Your task to perform on an android device: Open Reddit.com Image 0: 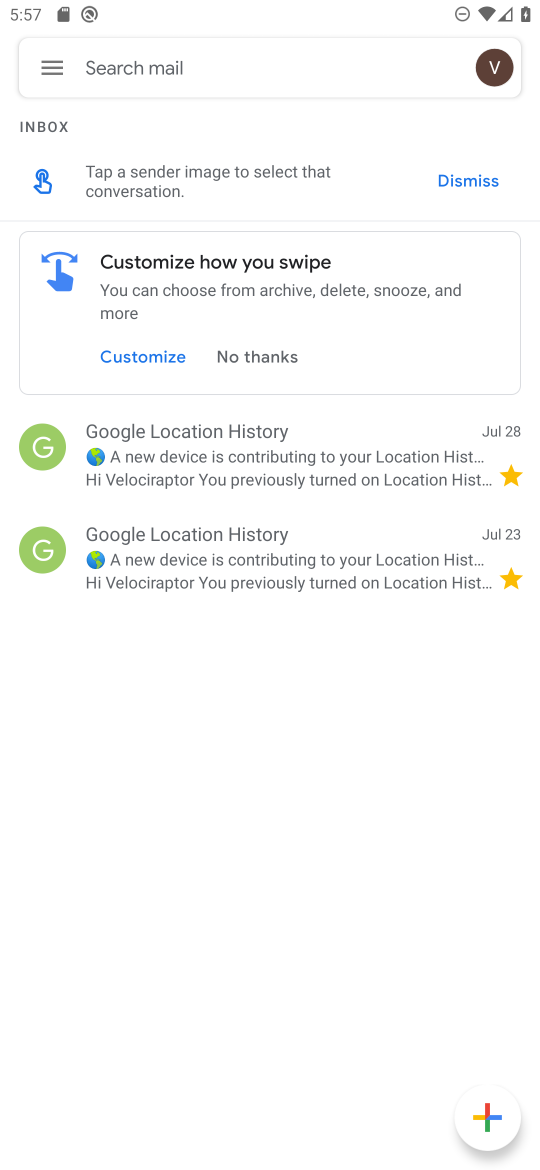
Step 0: press home button
Your task to perform on an android device: Open Reddit.com Image 1: 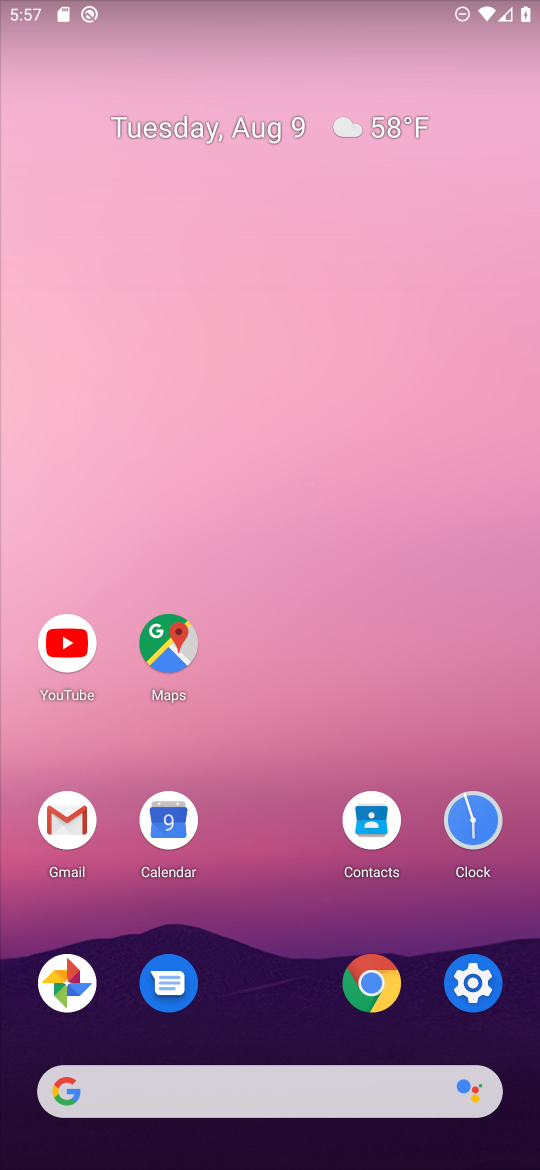
Step 1: click (374, 982)
Your task to perform on an android device: Open Reddit.com Image 2: 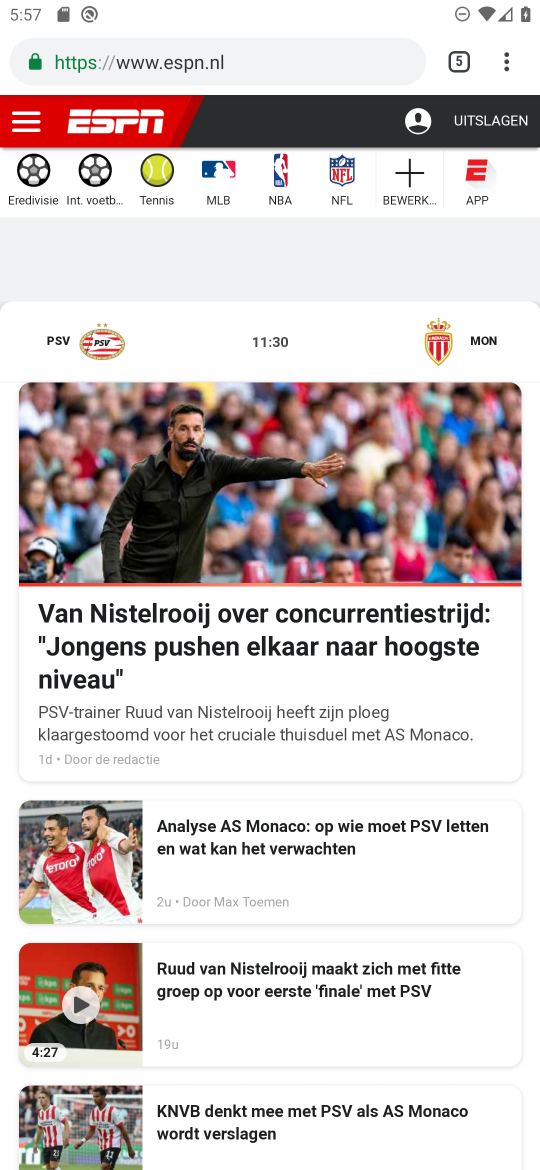
Step 2: click (502, 60)
Your task to perform on an android device: Open Reddit.com Image 3: 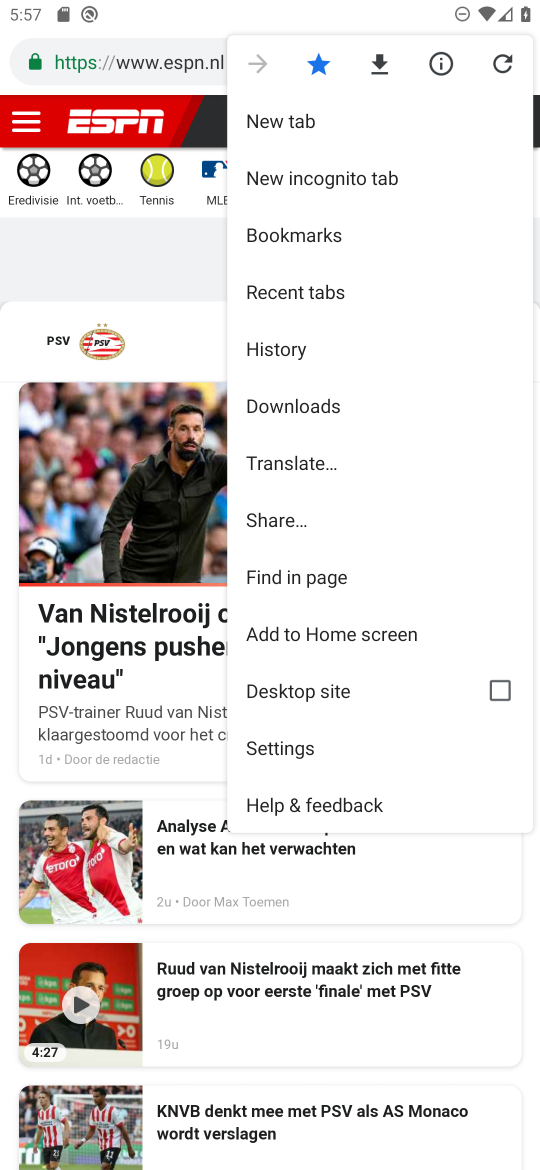
Step 3: click (311, 116)
Your task to perform on an android device: Open Reddit.com Image 4: 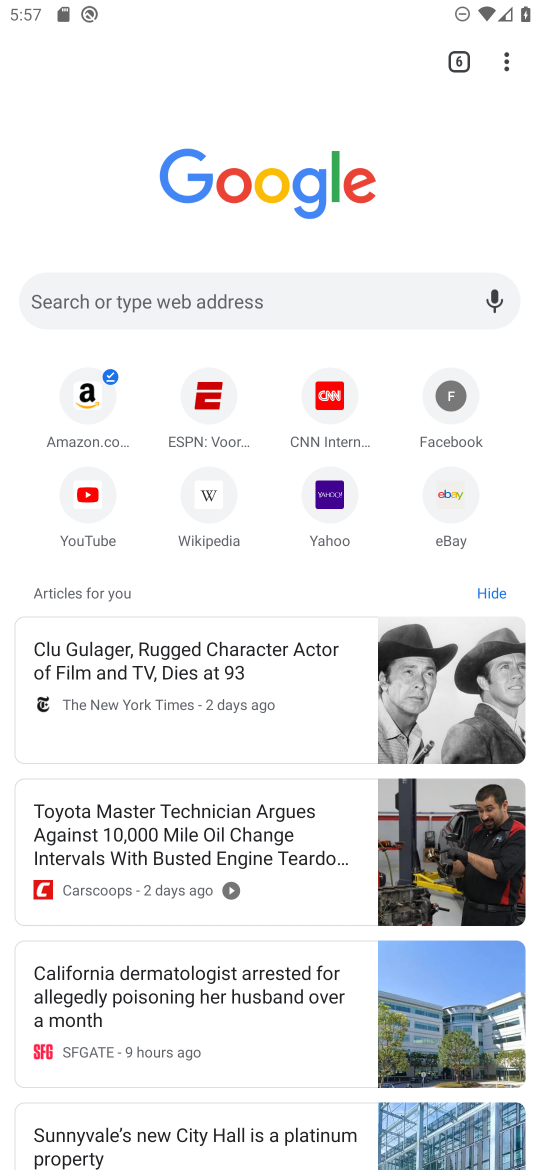
Step 4: click (309, 299)
Your task to perform on an android device: Open Reddit.com Image 5: 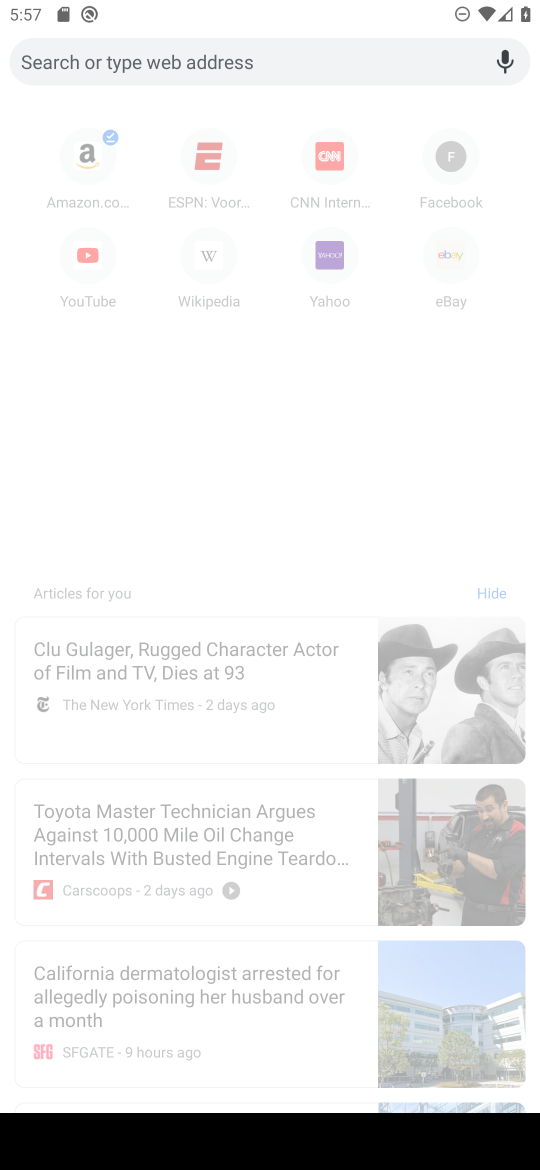
Step 5: type "reddit.com"
Your task to perform on an android device: Open Reddit.com Image 6: 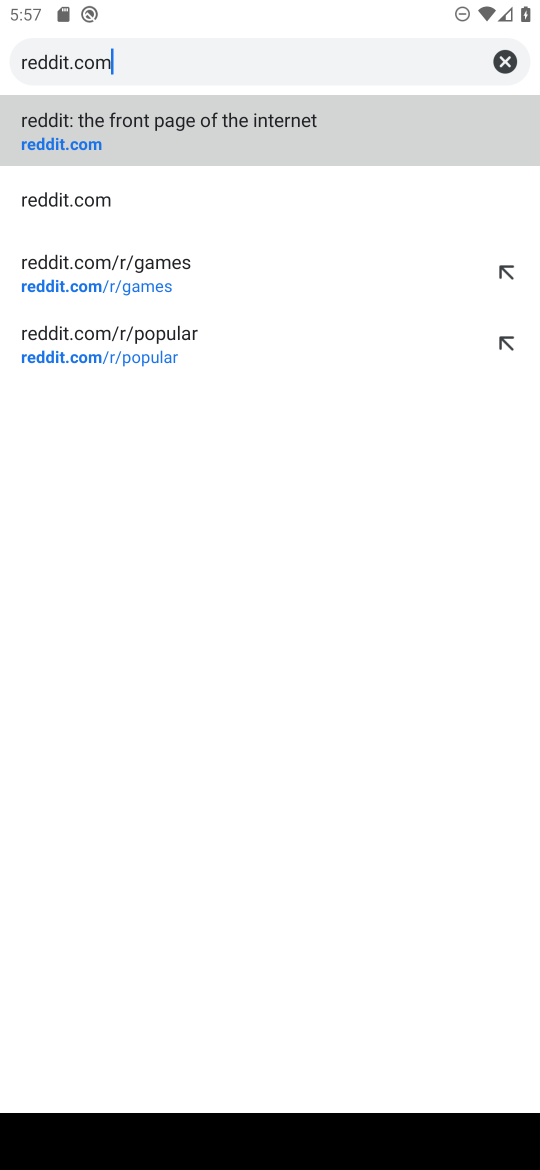
Step 6: click (120, 138)
Your task to perform on an android device: Open Reddit.com Image 7: 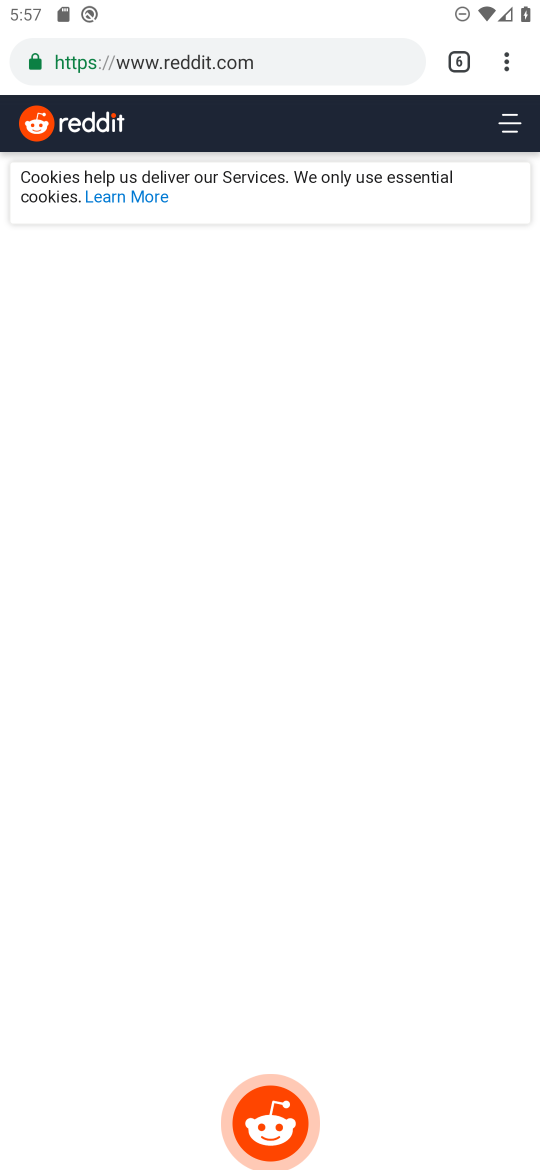
Step 7: task complete